Your task to perform on an android device: check storage Image 0: 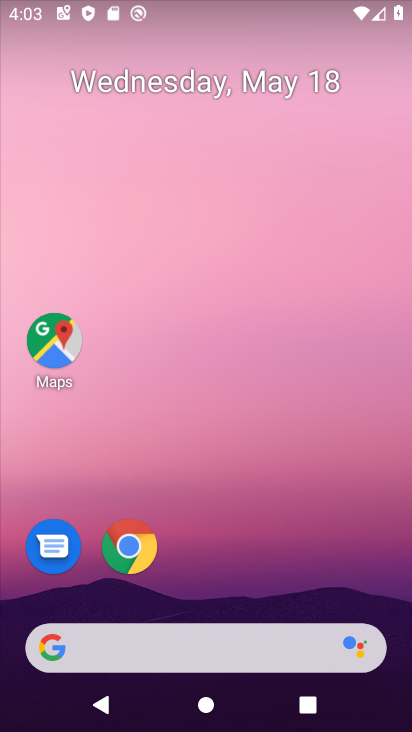
Step 0: drag from (191, 593) to (254, 203)
Your task to perform on an android device: check storage Image 1: 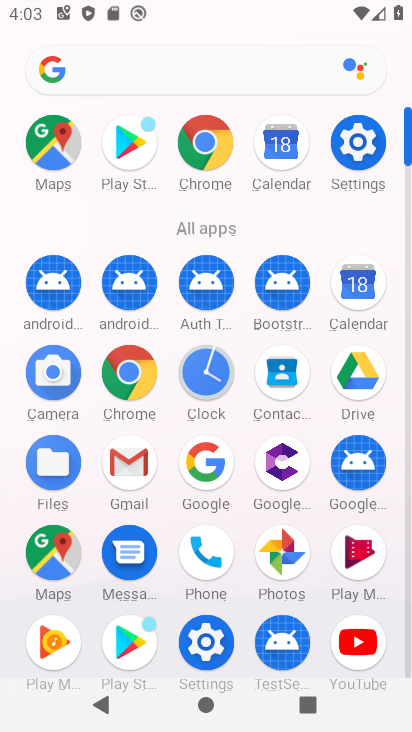
Step 1: click (366, 164)
Your task to perform on an android device: check storage Image 2: 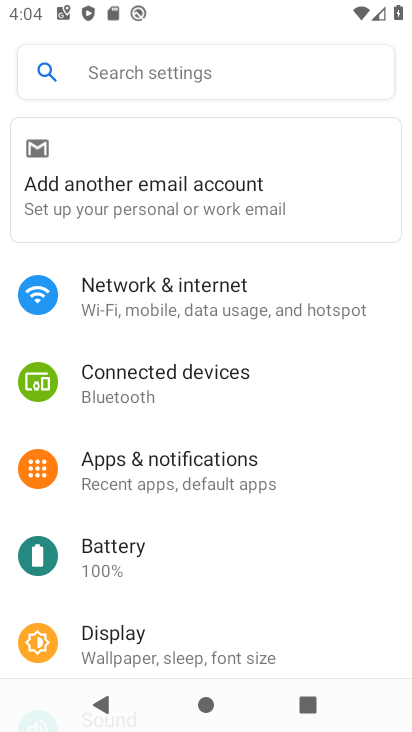
Step 2: drag from (154, 555) to (213, 291)
Your task to perform on an android device: check storage Image 3: 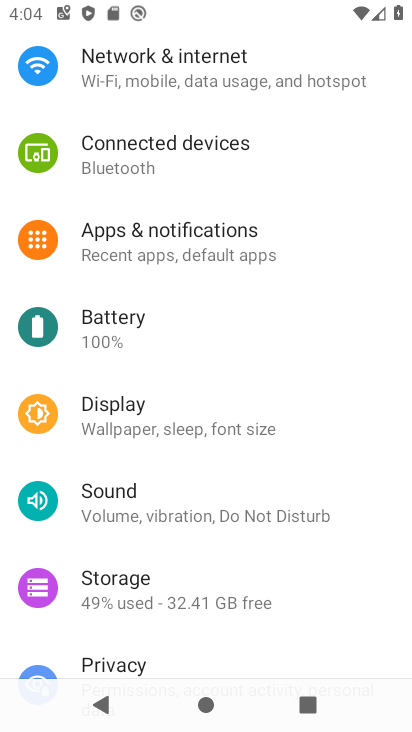
Step 3: click (152, 584)
Your task to perform on an android device: check storage Image 4: 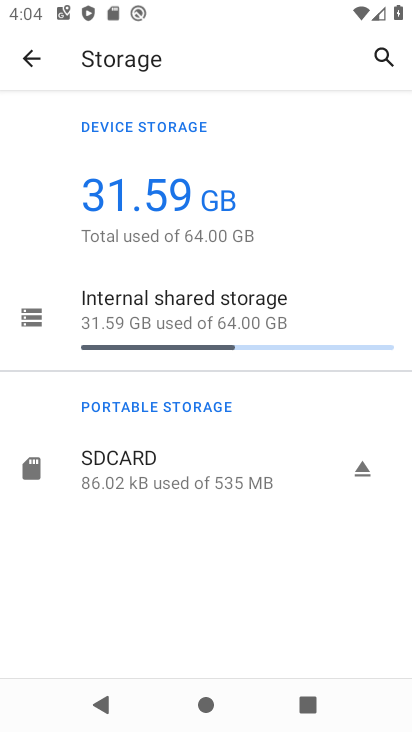
Step 4: click (207, 303)
Your task to perform on an android device: check storage Image 5: 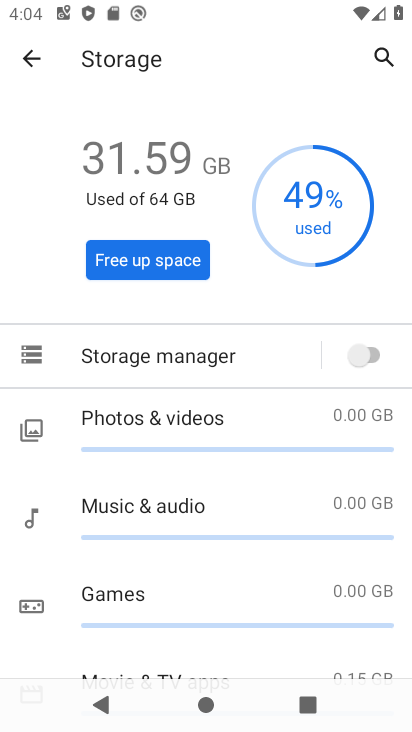
Step 5: task complete